Your task to perform on an android device: Search for pizza restaurants on Maps Image 0: 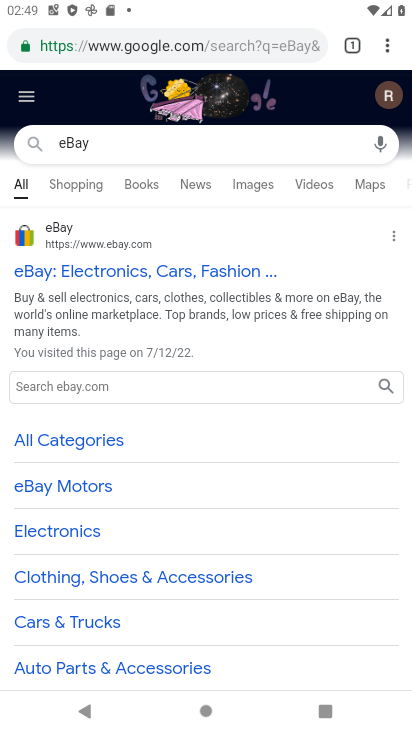
Step 0: press home button
Your task to perform on an android device: Search for pizza restaurants on Maps Image 1: 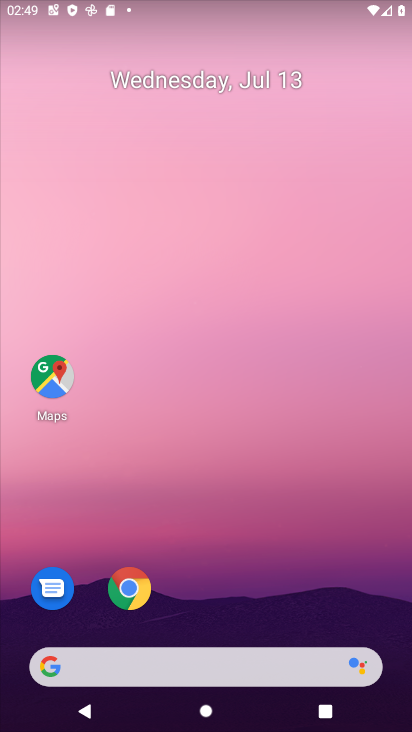
Step 1: click (50, 363)
Your task to perform on an android device: Search for pizza restaurants on Maps Image 2: 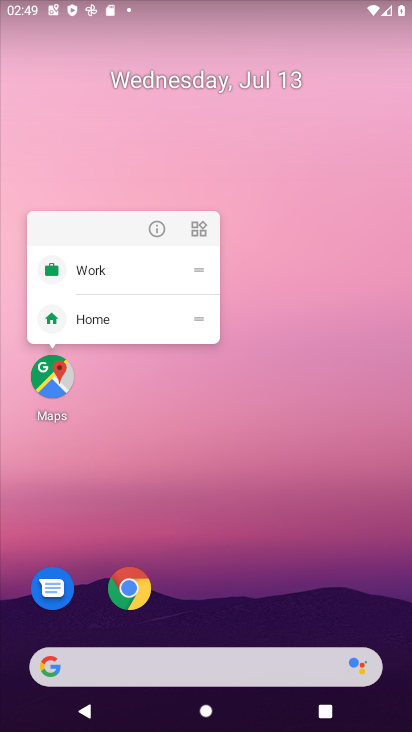
Step 2: click (66, 378)
Your task to perform on an android device: Search for pizza restaurants on Maps Image 3: 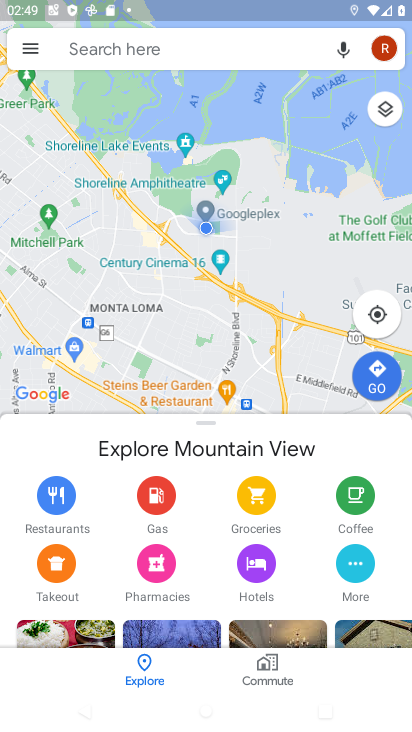
Step 3: click (230, 48)
Your task to perform on an android device: Search for pizza restaurants on Maps Image 4: 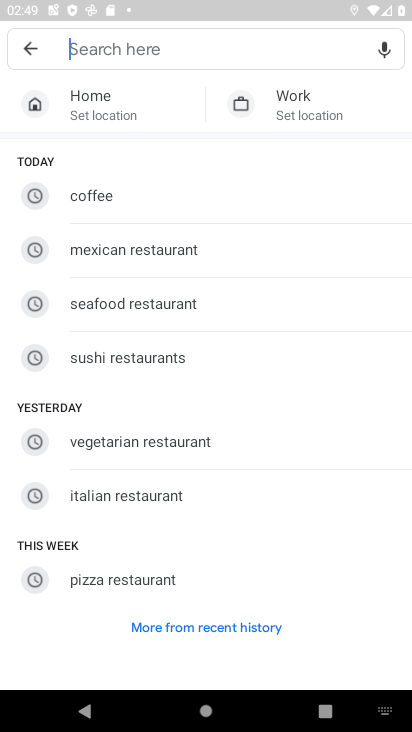
Step 4: type "pizza restaurants"
Your task to perform on an android device: Search for pizza restaurants on Maps Image 5: 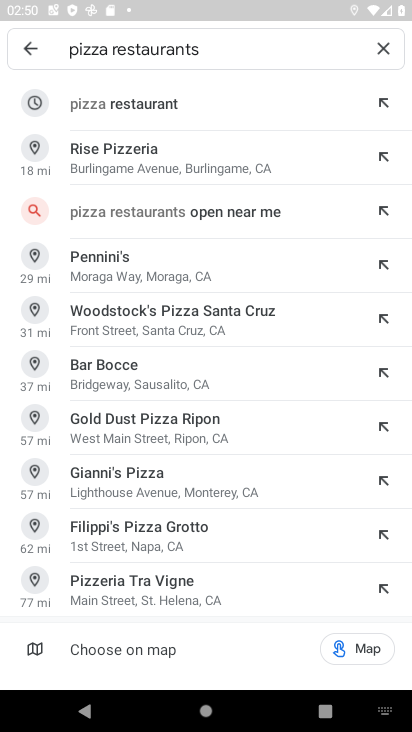
Step 5: click (114, 109)
Your task to perform on an android device: Search for pizza restaurants on Maps Image 6: 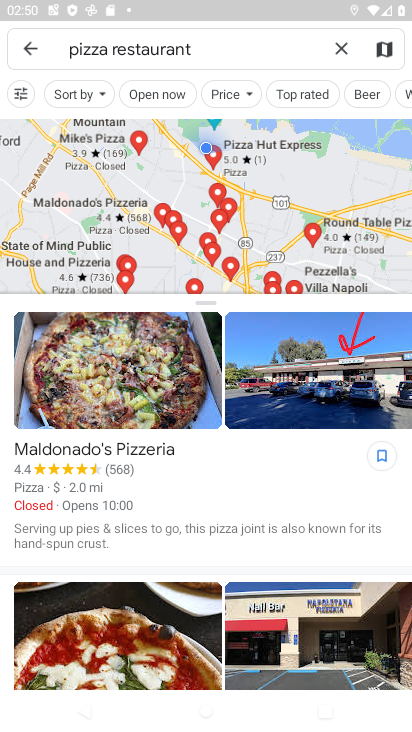
Step 6: task complete